Your task to perform on an android device: When is my next appointment? Image 0: 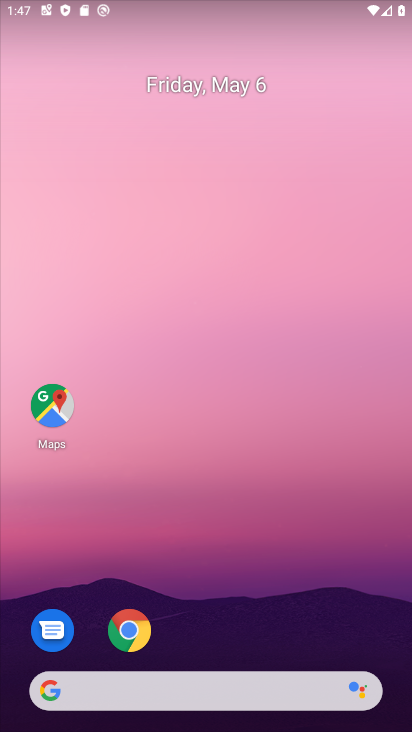
Step 0: drag from (204, 672) to (176, 237)
Your task to perform on an android device: When is my next appointment? Image 1: 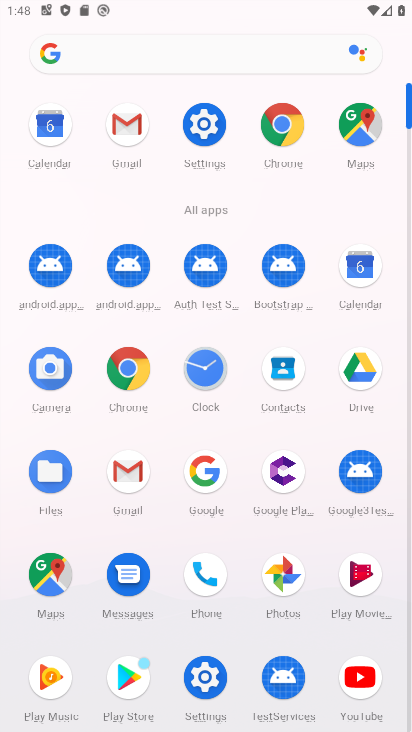
Step 1: click (366, 283)
Your task to perform on an android device: When is my next appointment? Image 2: 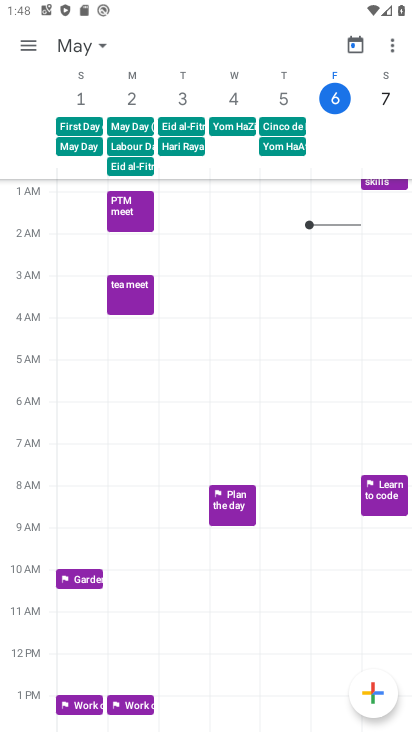
Step 2: task complete